Your task to perform on an android device: change timer sound Image 0: 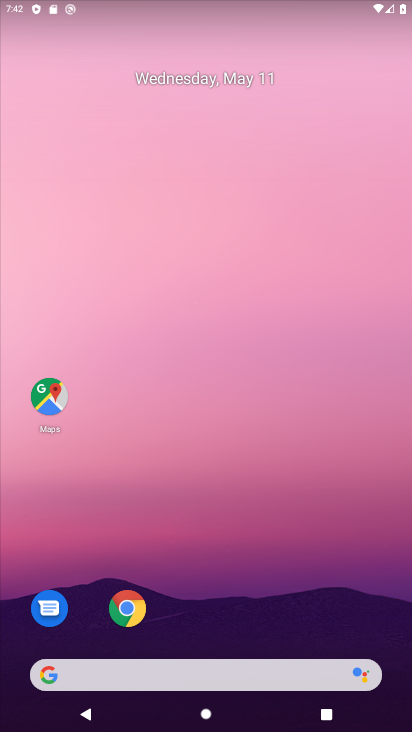
Step 0: drag from (220, 477) to (143, 81)
Your task to perform on an android device: change timer sound Image 1: 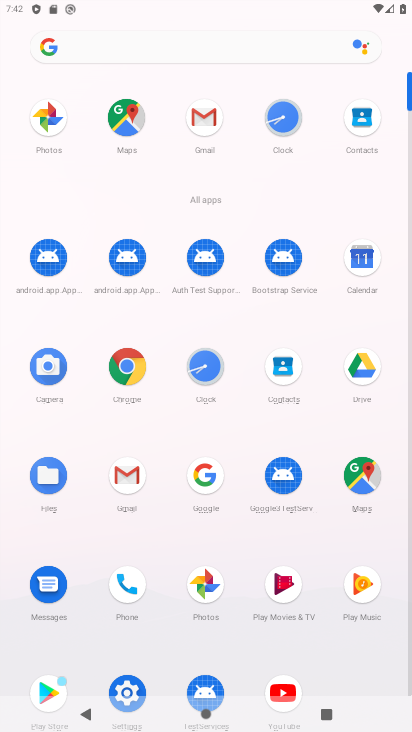
Step 1: click (280, 108)
Your task to perform on an android device: change timer sound Image 2: 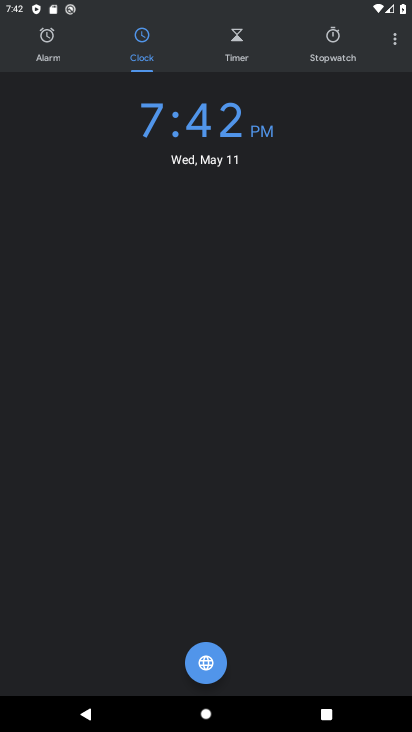
Step 2: click (399, 44)
Your task to perform on an android device: change timer sound Image 3: 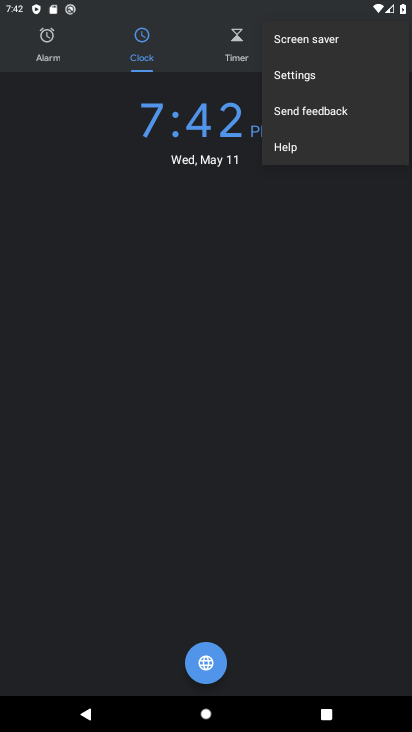
Step 3: click (302, 67)
Your task to perform on an android device: change timer sound Image 4: 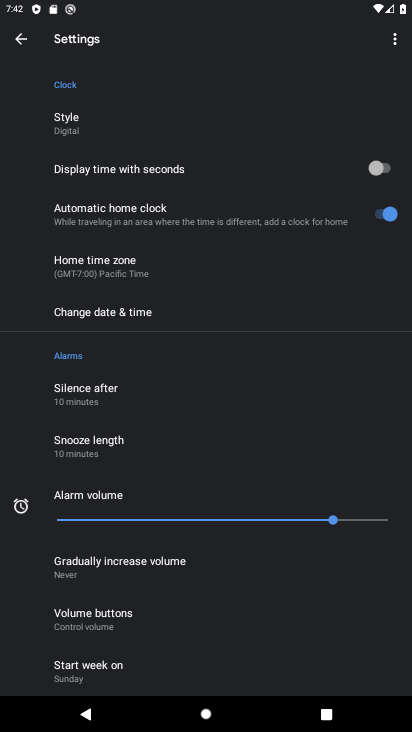
Step 4: drag from (242, 605) to (205, 261)
Your task to perform on an android device: change timer sound Image 5: 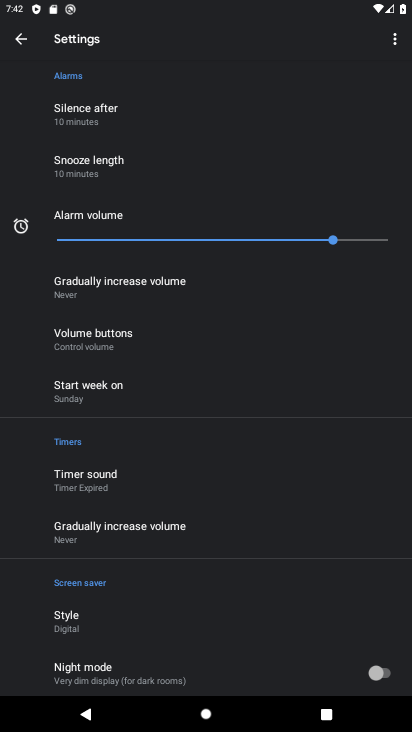
Step 5: click (139, 480)
Your task to perform on an android device: change timer sound Image 6: 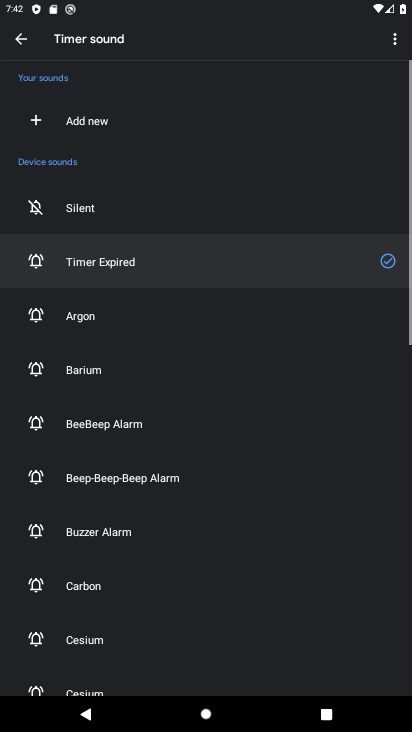
Step 6: click (185, 317)
Your task to perform on an android device: change timer sound Image 7: 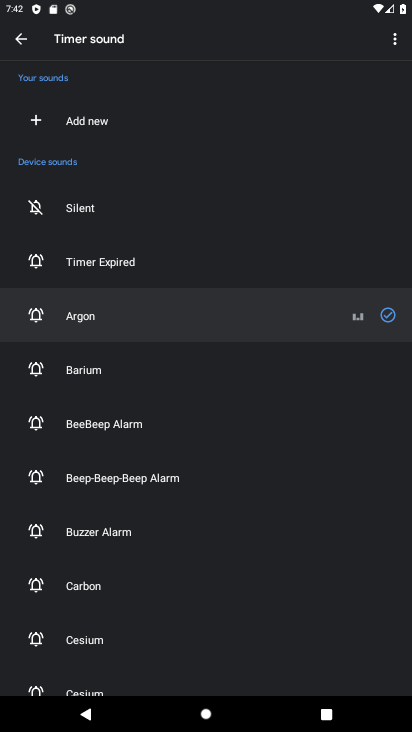
Step 7: task complete